Your task to perform on an android device: Open sound settings Image 0: 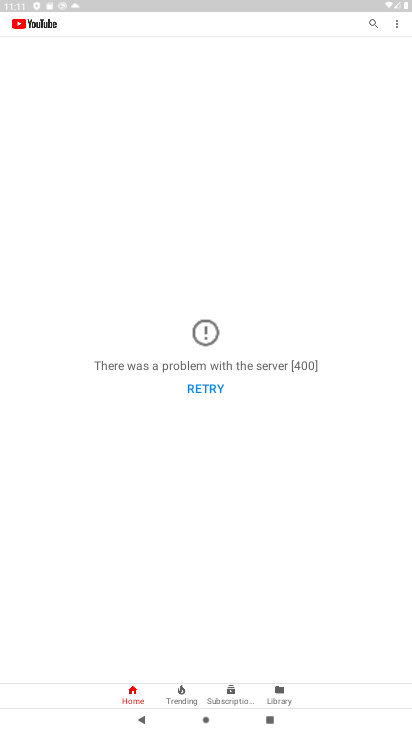
Step 0: press home button
Your task to perform on an android device: Open sound settings Image 1: 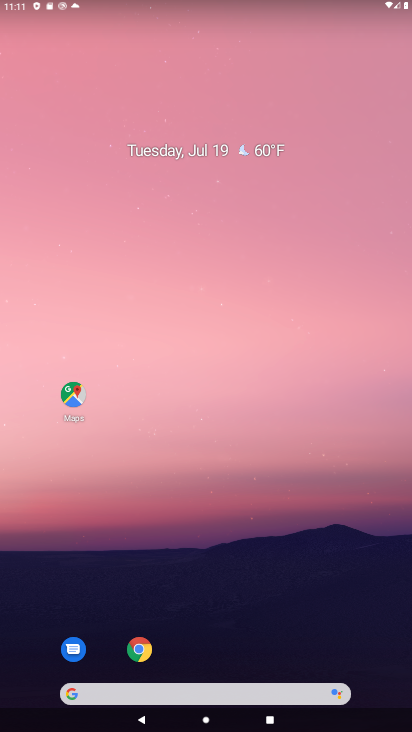
Step 1: drag from (199, 676) to (183, 357)
Your task to perform on an android device: Open sound settings Image 2: 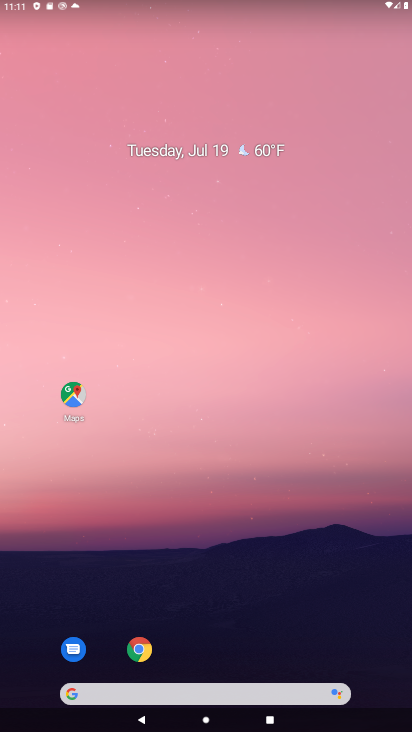
Step 2: drag from (183, 694) to (130, 295)
Your task to perform on an android device: Open sound settings Image 3: 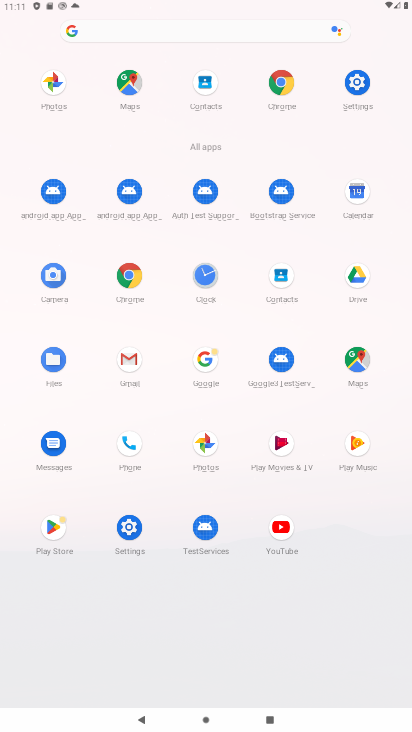
Step 3: click (127, 531)
Your task to perform on an android device: Open sound settings Image 4: 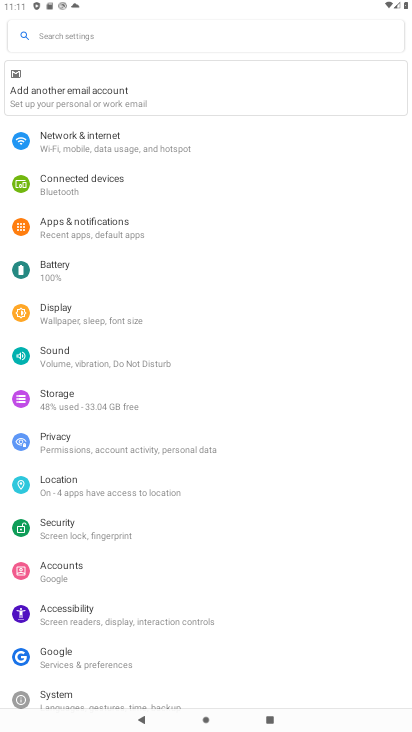
Step 4: click (94, 364)
Your task to perform on an android device: Open sound settings Image 5: 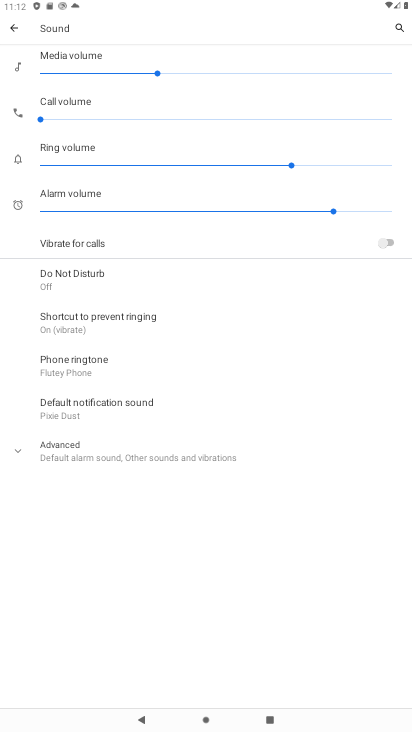
Step 5: task complete